Your task to perform on an android device: Open accessibility settings Image 0: 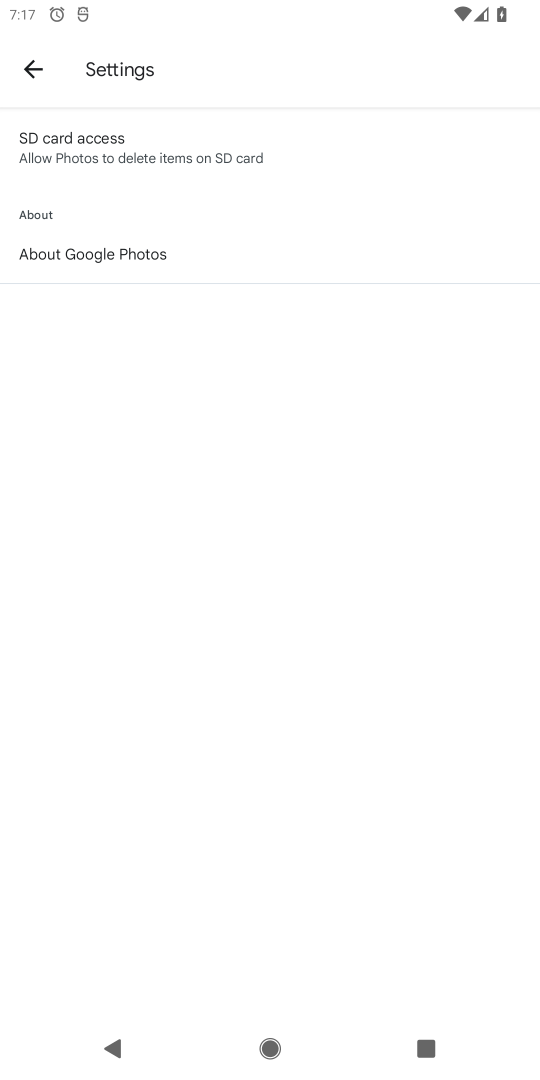
Step 0: press home button
Your task to perform on an android device: Open accessibility settings Image 1: 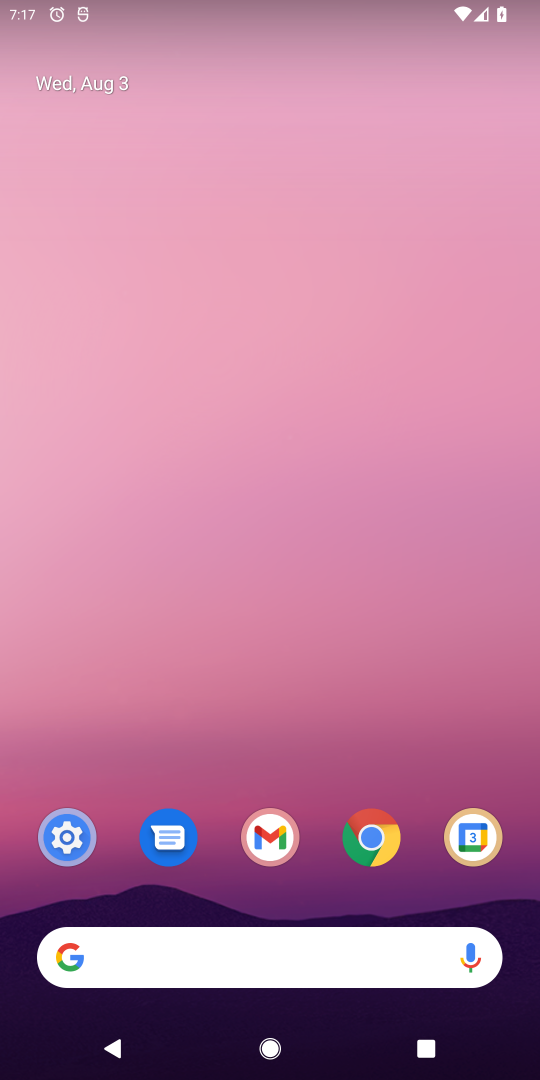
Step 1: drag from (372, 719) to (384, 164)
Your task to perform on an android device: Open accessibility settings Image 2: 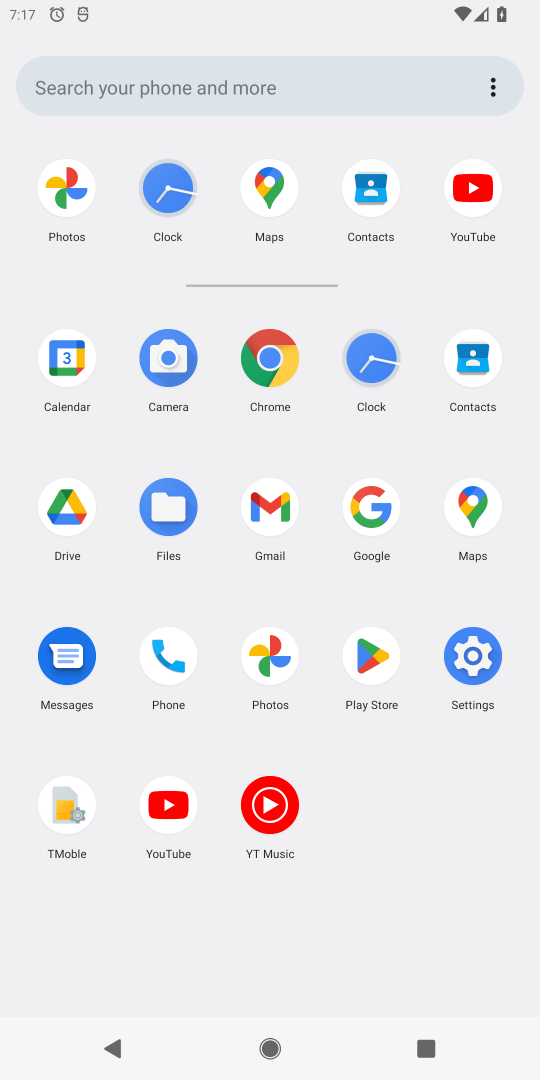
Step 2: click (475, 670)
Your task to perform on an android device: Open accessibility settings Image 3: 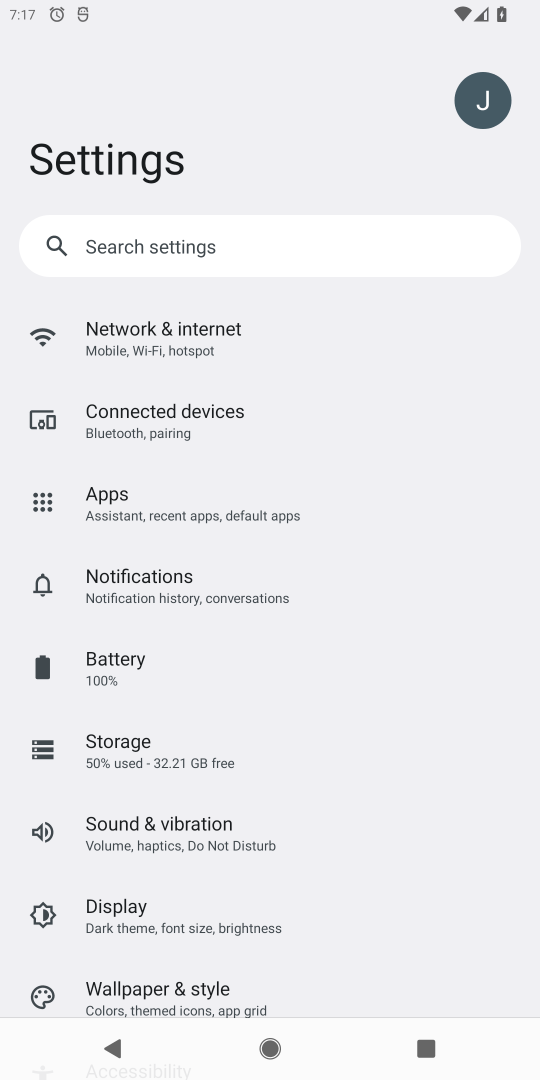
Step 3: drag from (335, 948) to (278, 395)
Your task to perform on an android device: Open accessibility settings Image 4: 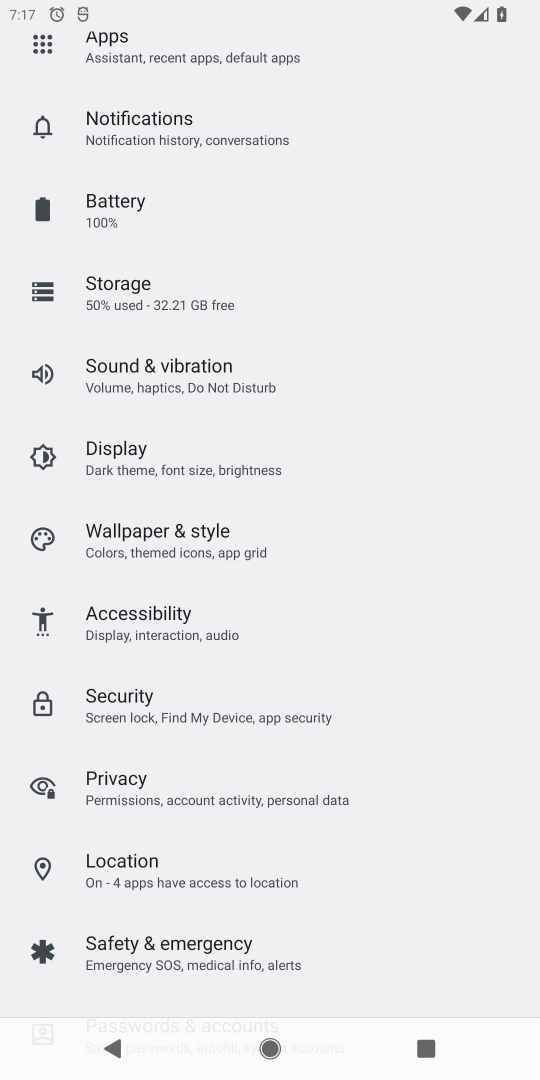
Step 4: click (205, 629)
Your task to perform on an android device: Open accessibility settings Image 5: 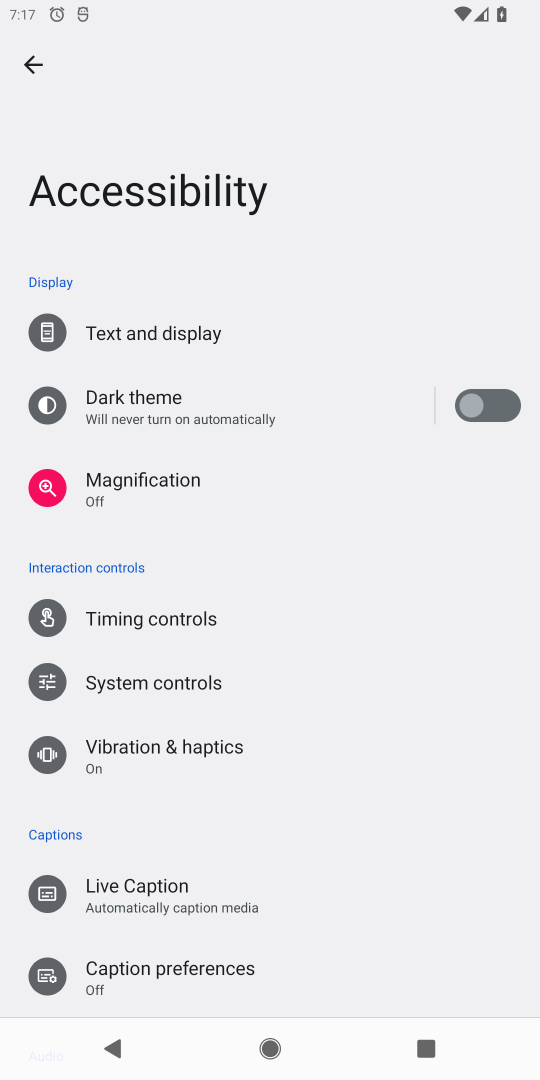
Step 5: task complete